Your task to perform on an android device: turn on airplane mode Image 0: 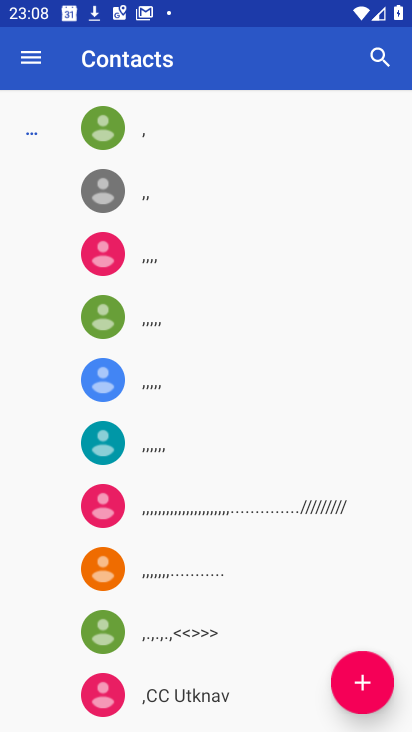
Step 0: press home button
Your task to perform on an android device: turn on airplane mode Image 1: 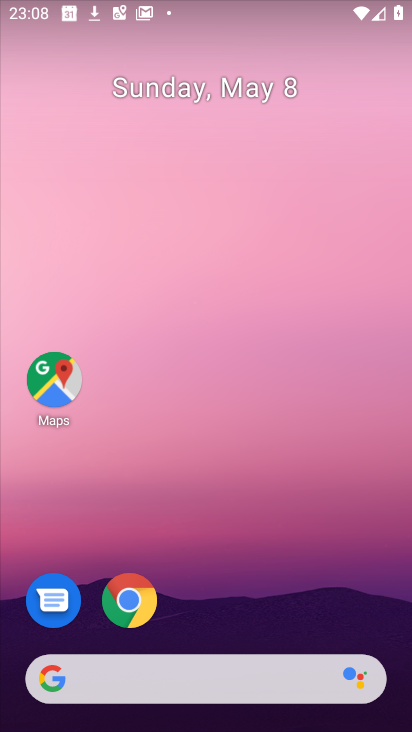
Step 1: drag from (288, 701) to (288, 296)
Your task to perform on an android device: turn on airplane mode Image 2: 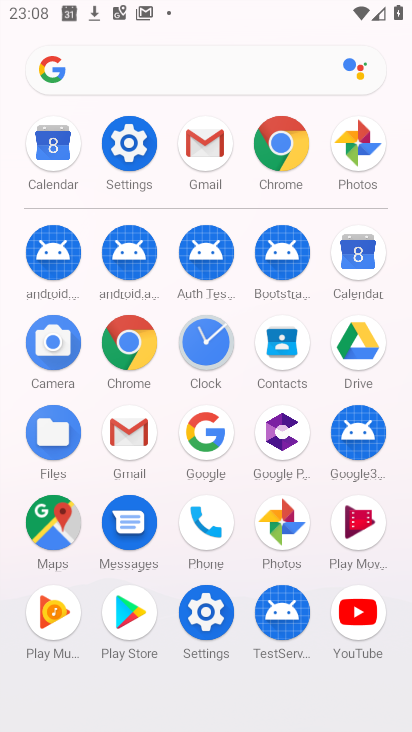
Step 2: click (215, 604)
Your task to perform on an android device: turn on airplane mode Image 3: 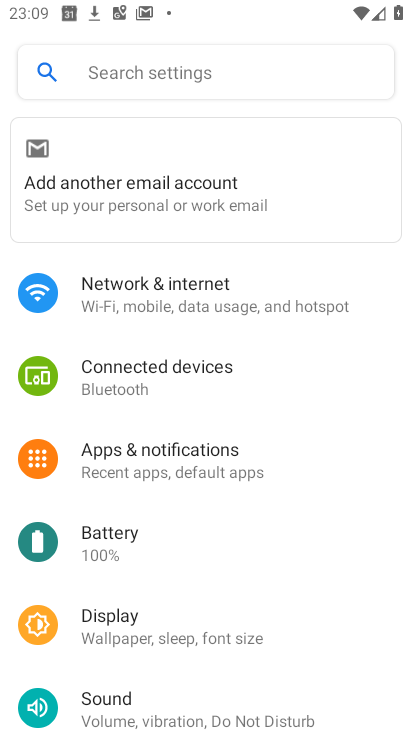
Step 3: click (176, 310)
Your task to perform on an android device: turn on airplane mode Image 4: 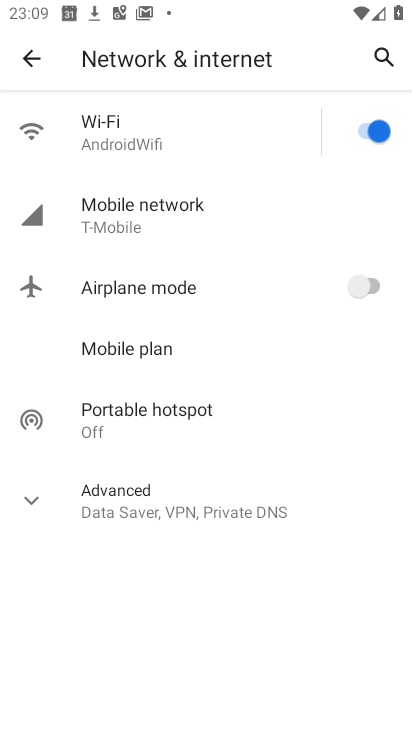
Step 4: click (179, 281)
Your task to perform on an android device: turn on airplane mode Image 5: 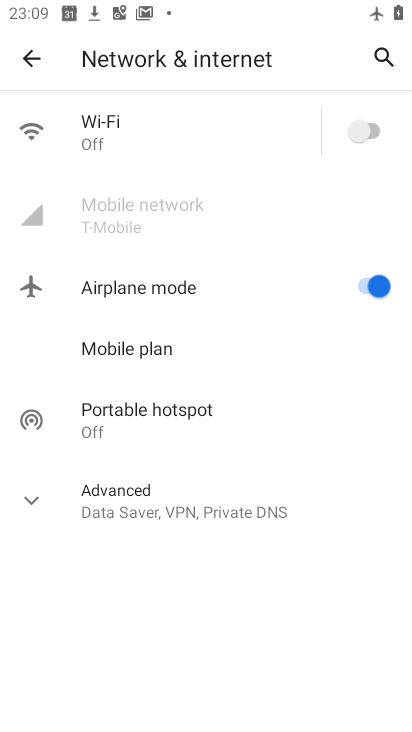
Step 5: task complete